Your task to perform on an android device: Open the phone app and click the voicemail tab. Image 0: 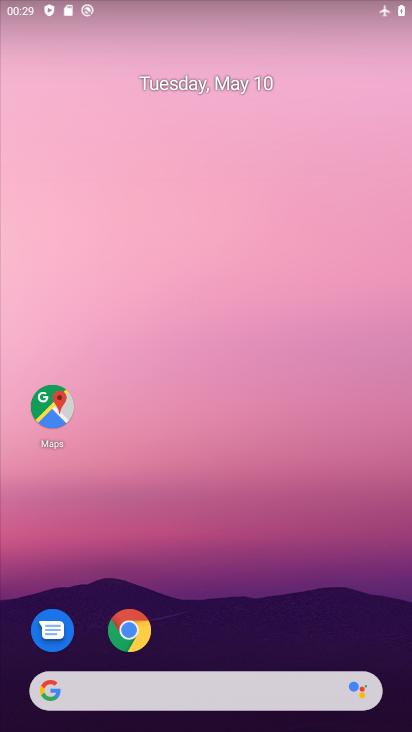
Step 0: drag from (213, 716) to (204, 273)
Your task to perform on an android device: Open the phone app and click the voicemail tab. Image 1: 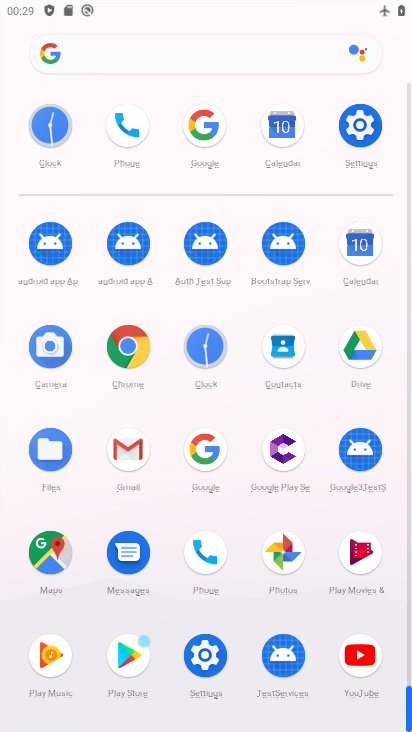
Step 1: click (210, 553)
Your task to perform on an android device: Open the phone app and click the voicemail tab. Image 2: 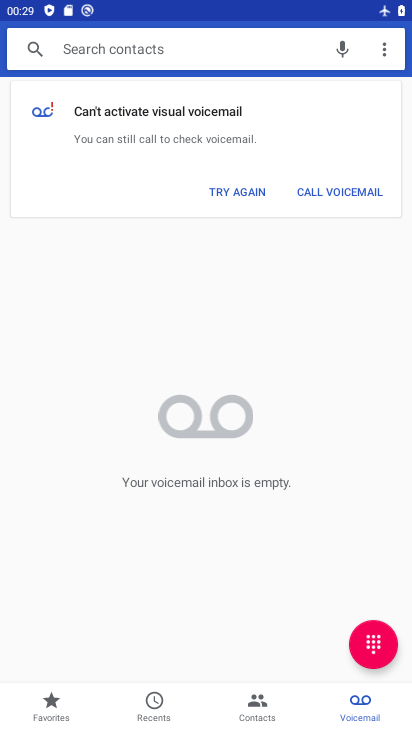
Step 2: task complete